Your task to perform on an android device: turn on the 24-hour format for clock Image 0: 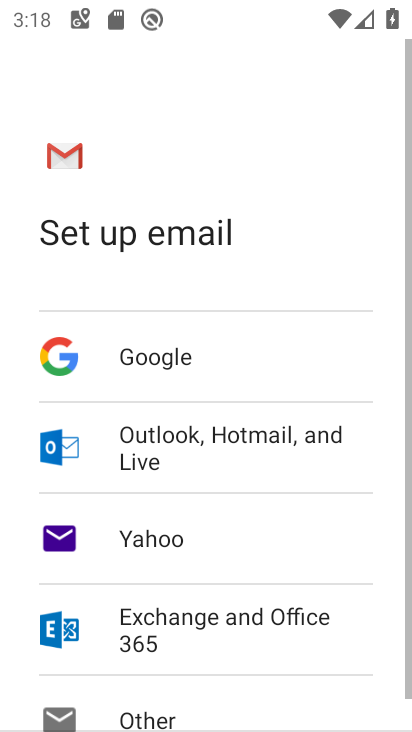
Step 0: press home button
Your task to perform on an android device: turn on the 24-hour format for clock Image 1: 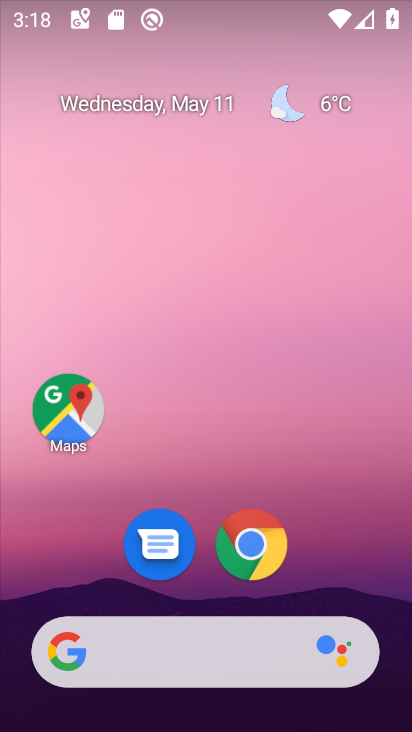
Step 1: drag from (306, 507) to (282, 87)
Your task to perform on an android device: turn on the 24-hour format for clock Image 2: 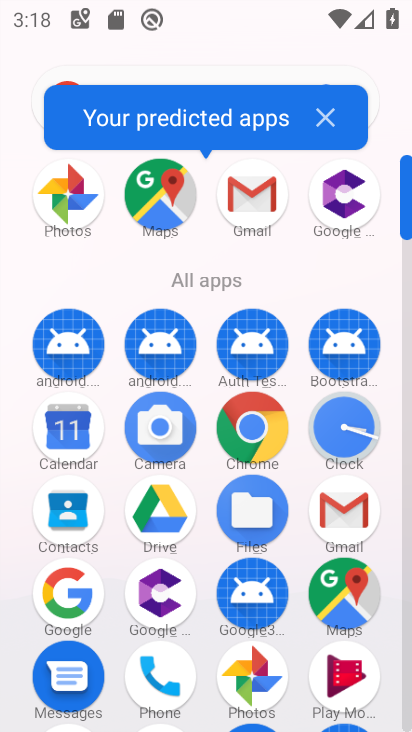
Step 2: click (335, 429)
Your task to perform on an android device: turn on the 24-hour format for clock Image 3: 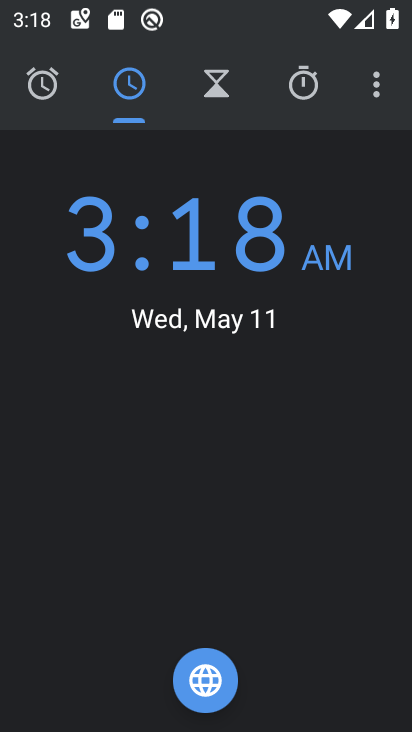
Step 3: click (372, 97)
Your task to perform on an android device: turn on the 24-hour format for clock Image 4: 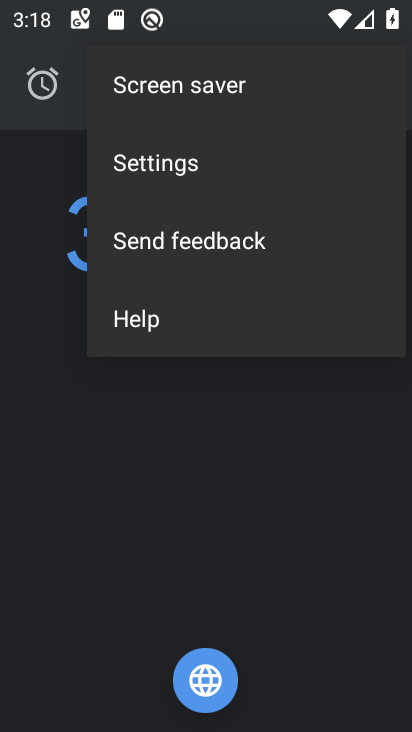
Step 4: click (310, 154)
Your task to perform on an android device: turn on the 24-hour format for clock Image 5: 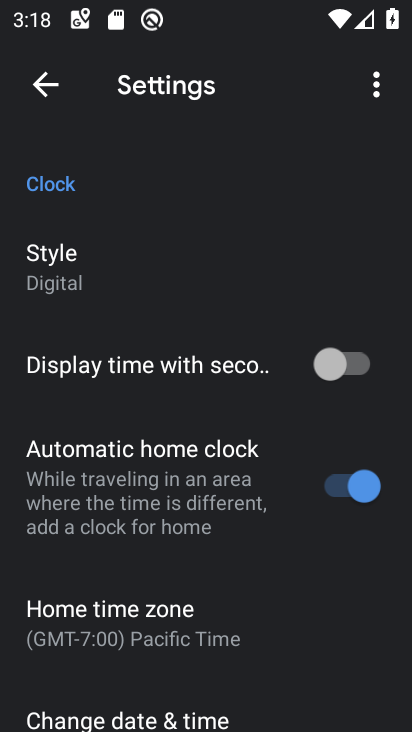
Step 5: click (196, 704)
Your task to perform on an android device: turn on the 24-hour format for clock Image 6: 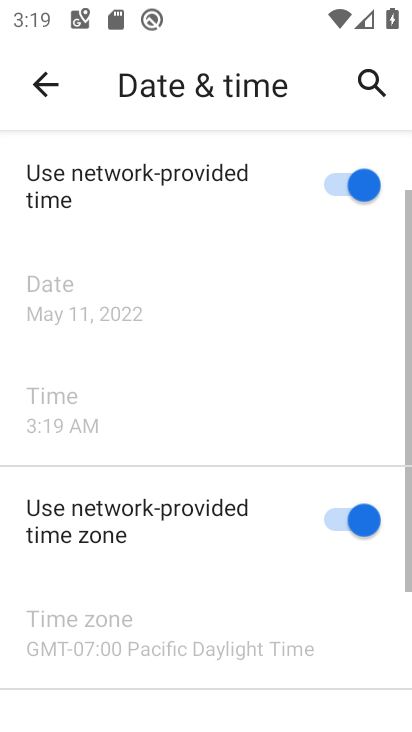
Step 6: drag from (175, 629) to (211, 225)
Your task to perform on an android device: turn on the 24-hour format for clock Image 7: 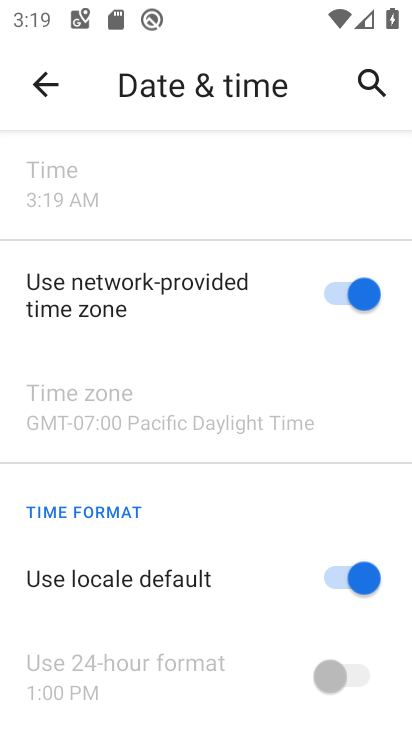
Step 7: click (329, 572)
Your task to perform on an android device: turn on the 24-hour format for clock Image 8: 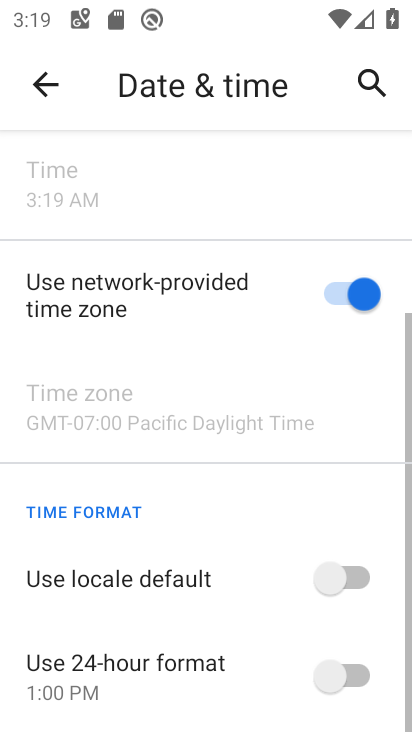
Step 8: click (343, 668)
Your task to perform on an android device: turn on the 24-hour format for clock Image 9: 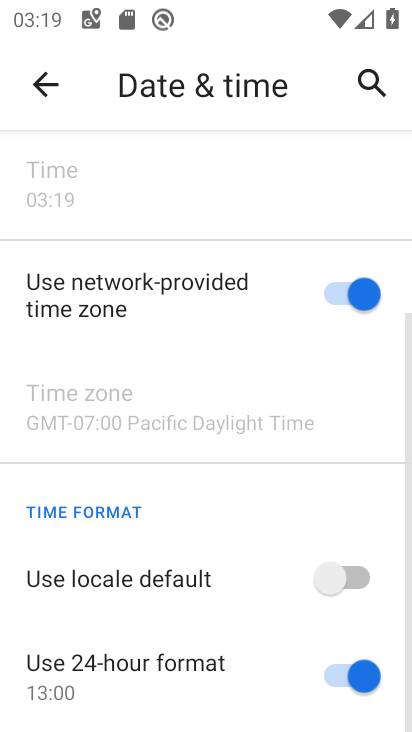
Step 9: task complete